Your task to perform on an android device: Show me productivity apps on the Play Store Image 0: 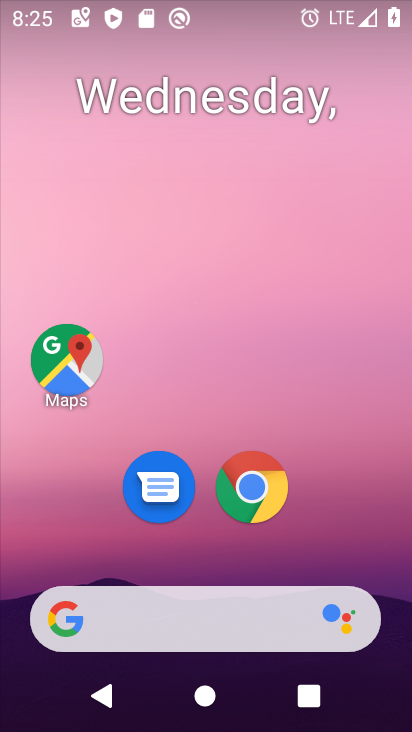
Step 0: drag from (359, 570) to (343, 14)
Your task to perform on an android device: Show me productivity apps on the Play Store Image 1: 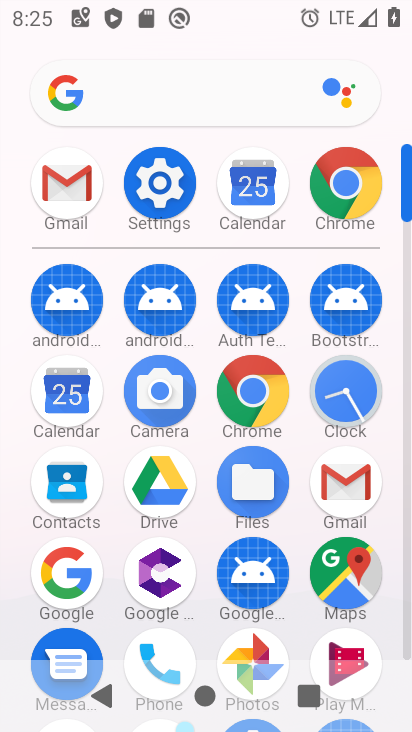
Step 1: click (409, 555)
Your task to perform on an android device: Show me productivity apps on the Play Store Image 2: 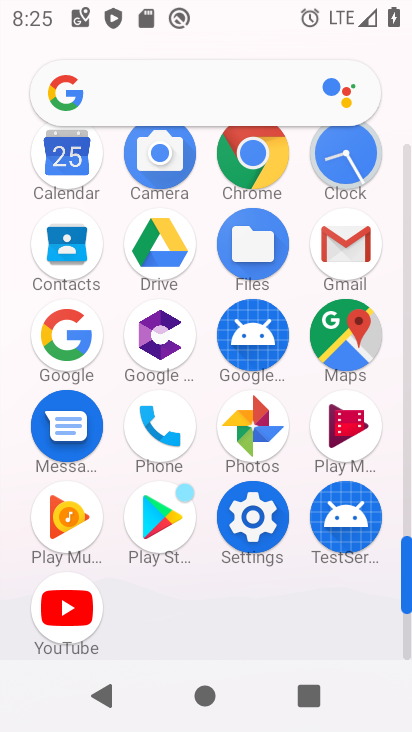
Step 2: click (165, 524)
Your task to perform on an android device: Show me productivity apps on the Play Store Image 3: 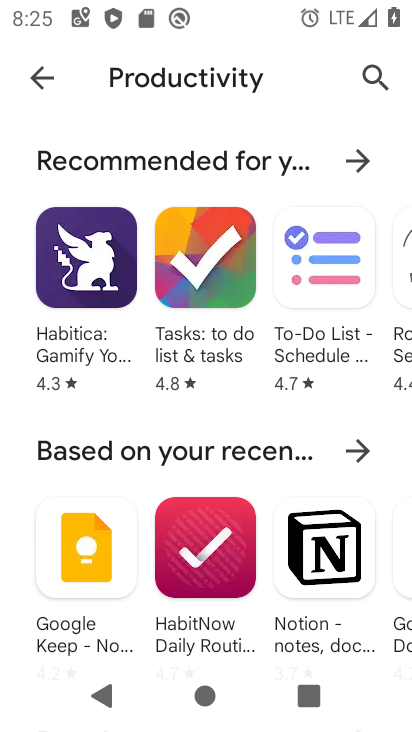
Step 3: task complete